Your task to perform on an android device: change your default location settings in chrome Image 0: 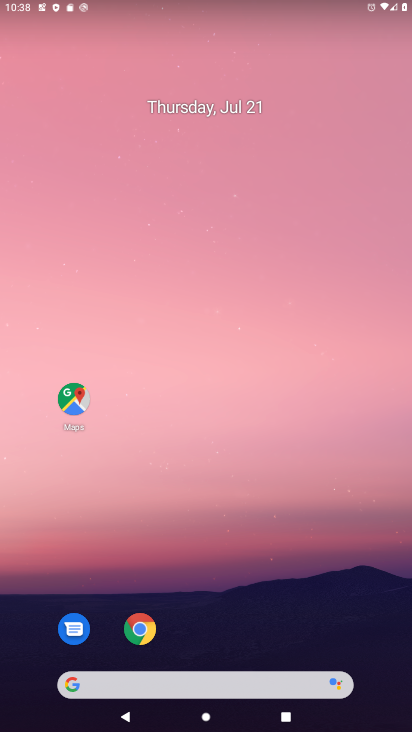
Step 0: drag from (214, 624) to (220, 0)
Your task to perform on an android device: change your default location settings in chrome Image 1: 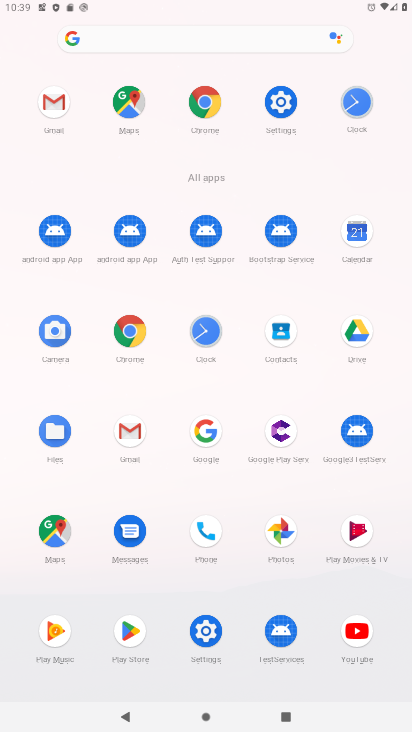
Step 1: click (116, 376)
Your task to perform on an android device: change your default location settings in chrome Image 2: 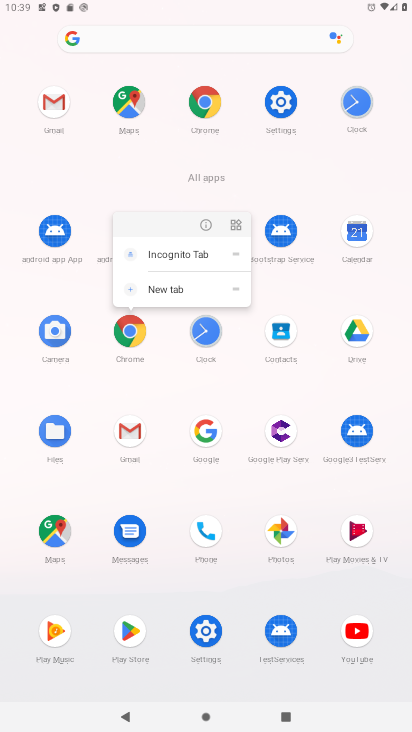
Step 2: click (204, 221)
Your task to perform on an android device: change your default location settings in chrome Image 3: 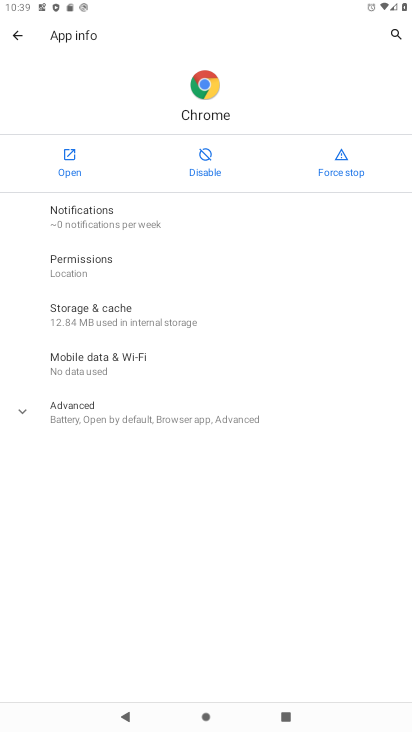
Step 3: click (114, 249)
Your task to perform on an android device: change your default location settings in chrome Image 4: 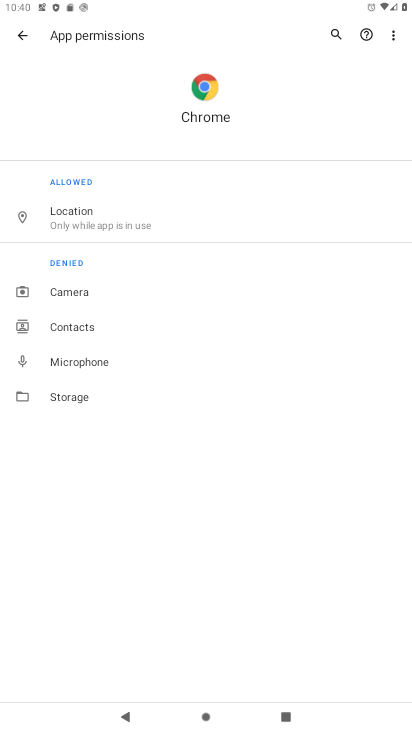
Step 4: click (90, 216)
Your task to perform on an android device: change your default location settings in chrome Image 5: 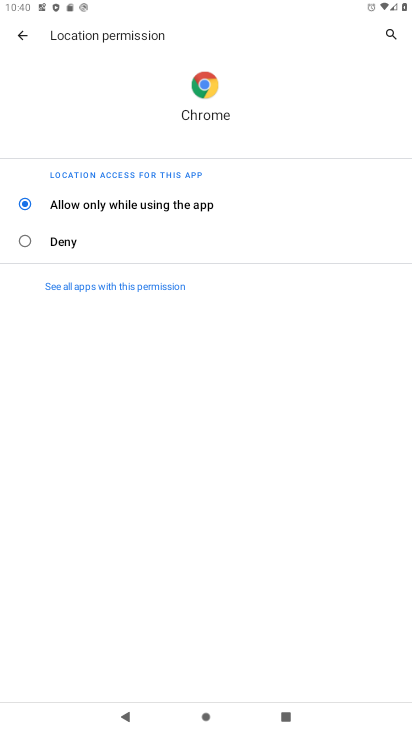
Step 5: click (61, 237)
Your task to perform on an android device: change your default location settings in chrome Image 6: 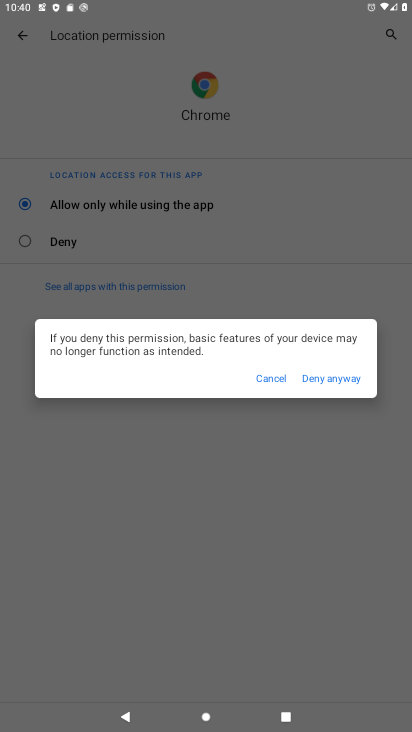
Step 6: click (21, 33)
Your task to perform on an android device: change your default location settings in chrome Image 7: 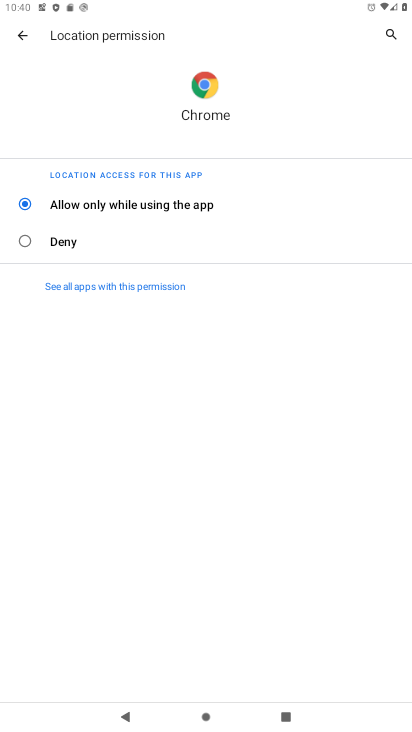
Step 7: click (75, 243)
Your task to perform on an android device: change your default location settings in chrome Image 8: 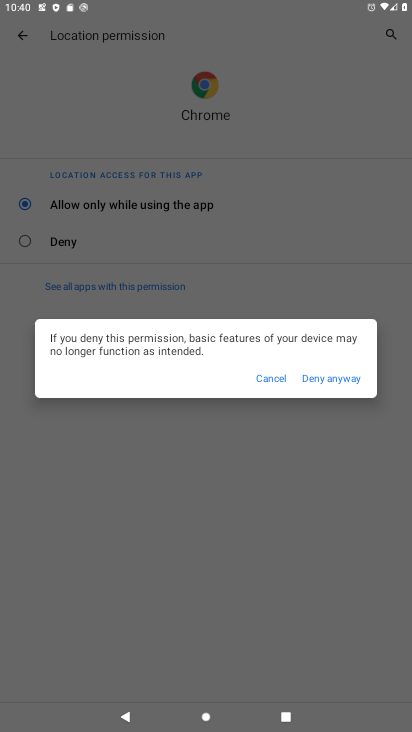
Step 8: click (311, 377)
Your task to perform on an android device: change your default location settings in chrome Image 9: 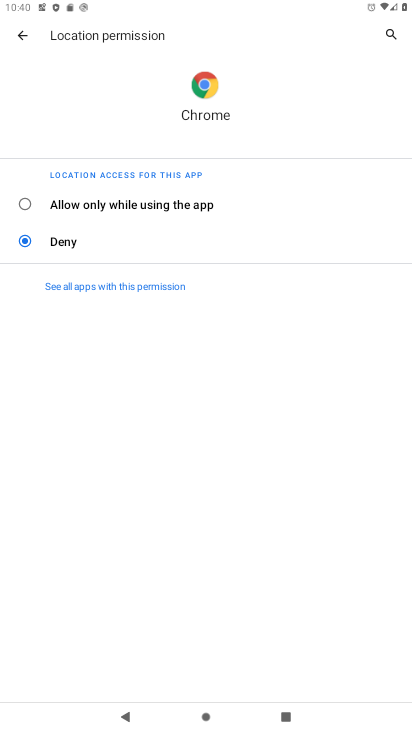
Step 9: click (29, 34)
Your task to perform on an android device: change your default location settings in chrome Image 10: 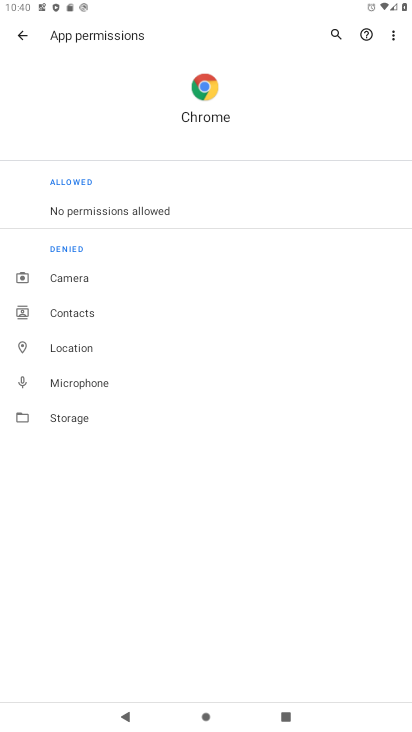
Step 10: task complete